Your task to perform on an android device: What time is it in Berlin? Image 0: 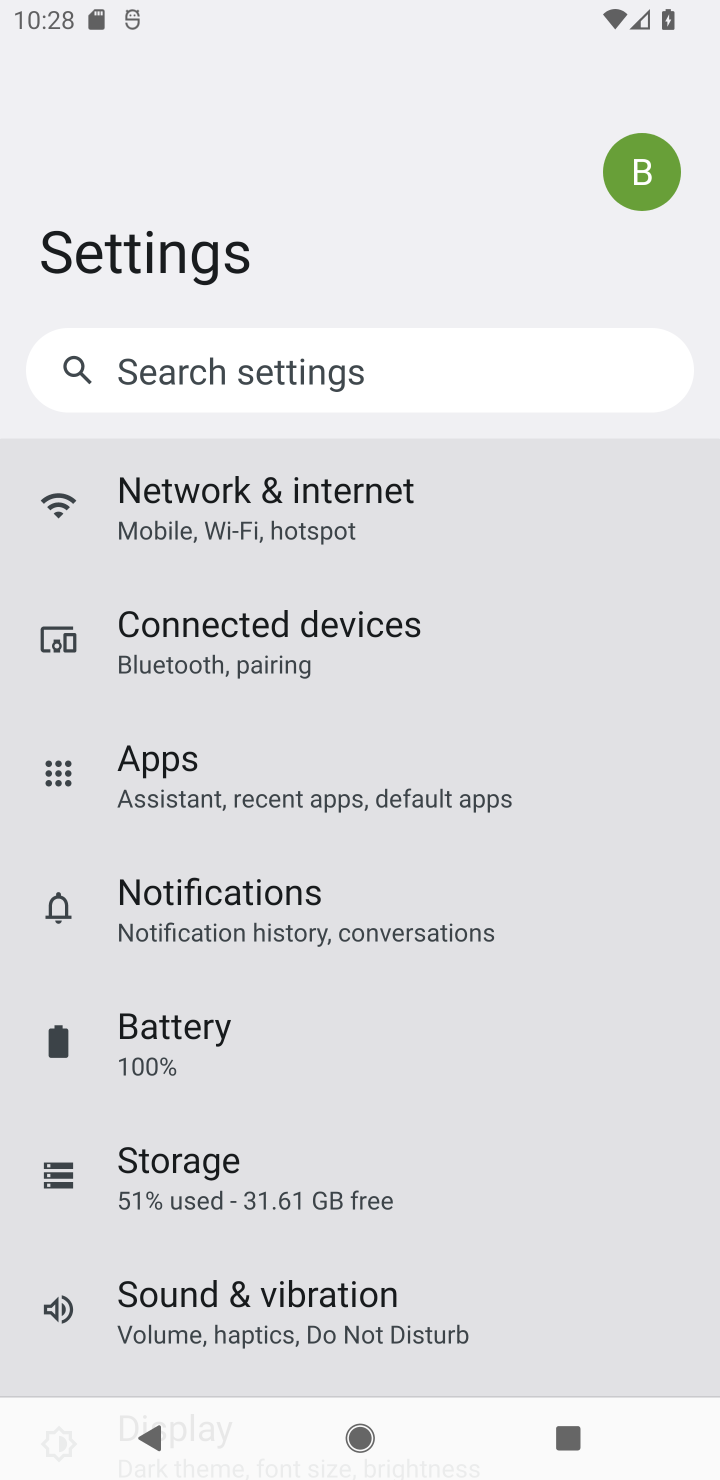
Step 0: press home button
Your task to perform on an android device: What time is it in Berlin? Image 1: 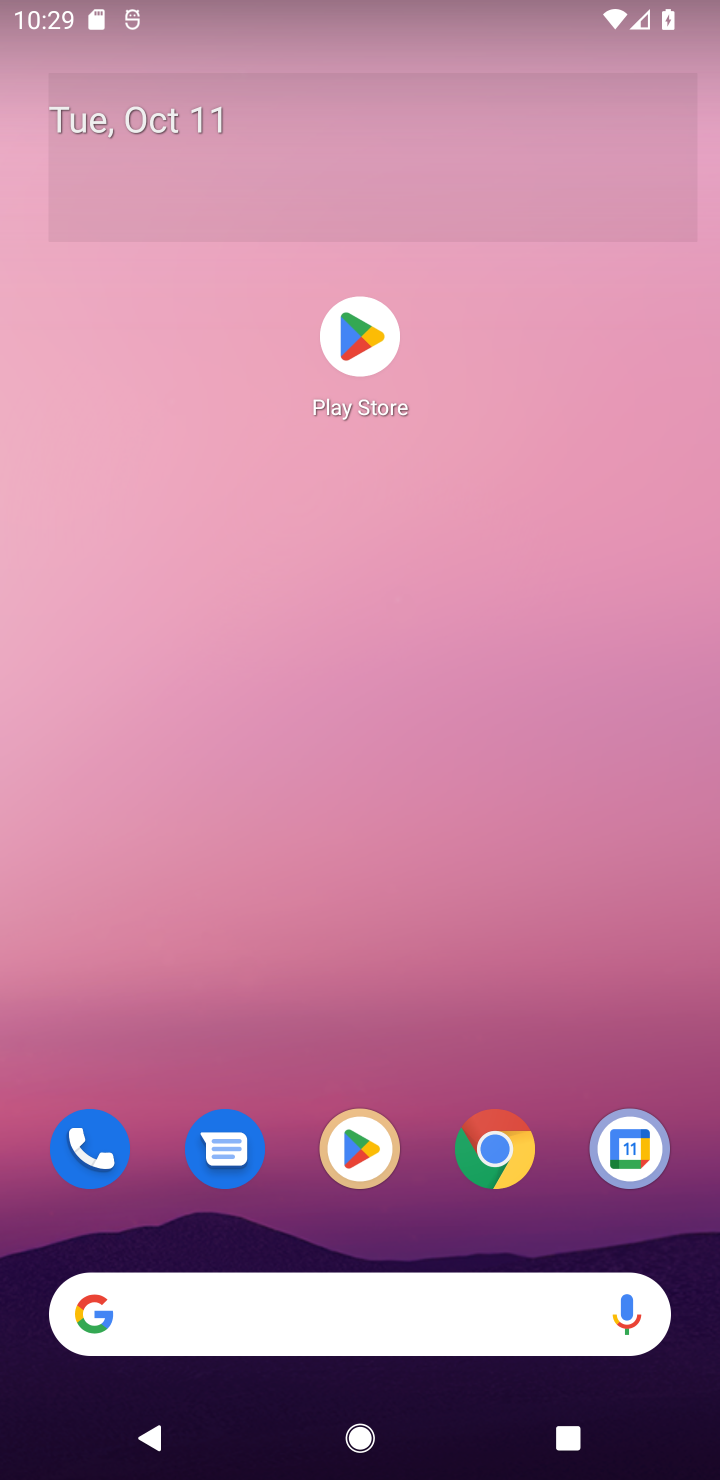
Step 1: click (341, 1315)
Your task to perform on an android device: What time is it in Berlin? Image 2: 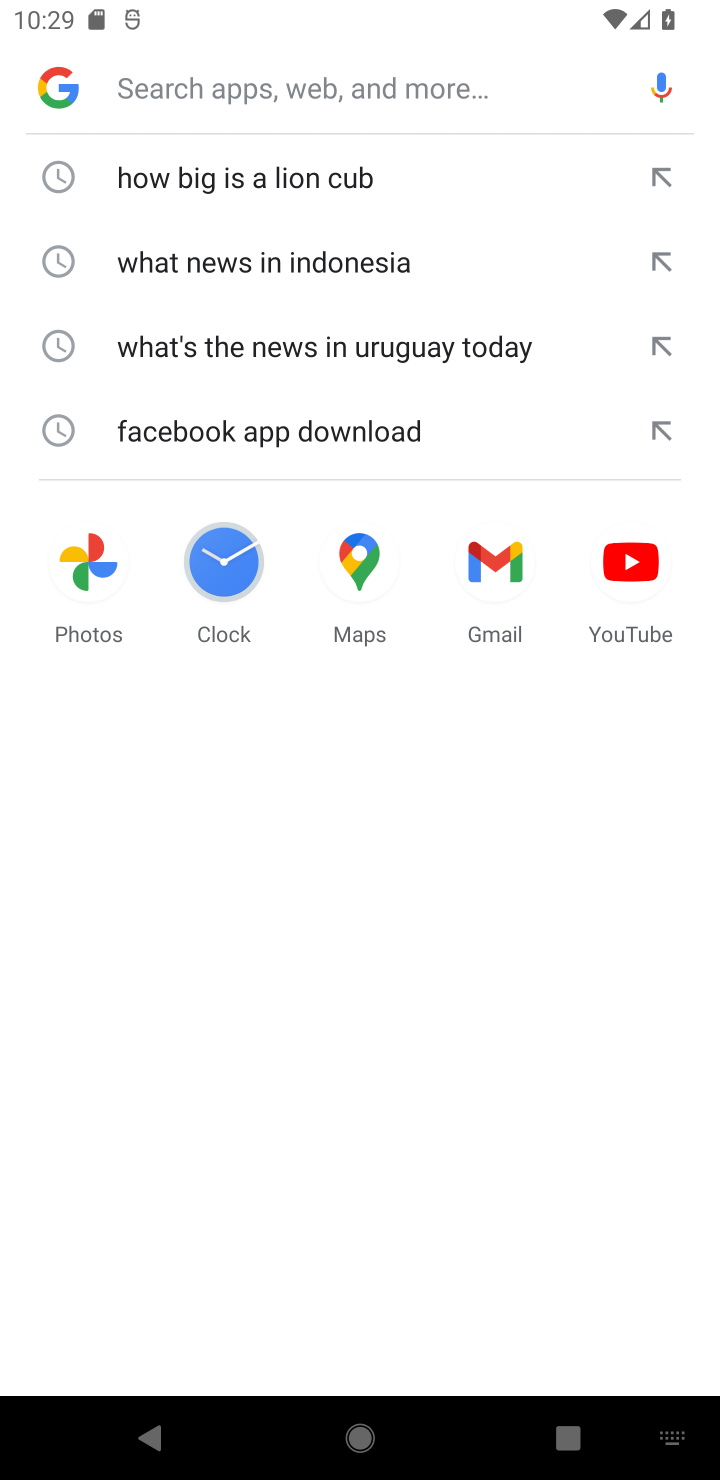
Step 2: type "What time is it in Berlin?"
Your task to perform on an android device: What time is it in Berlin? Image 3: 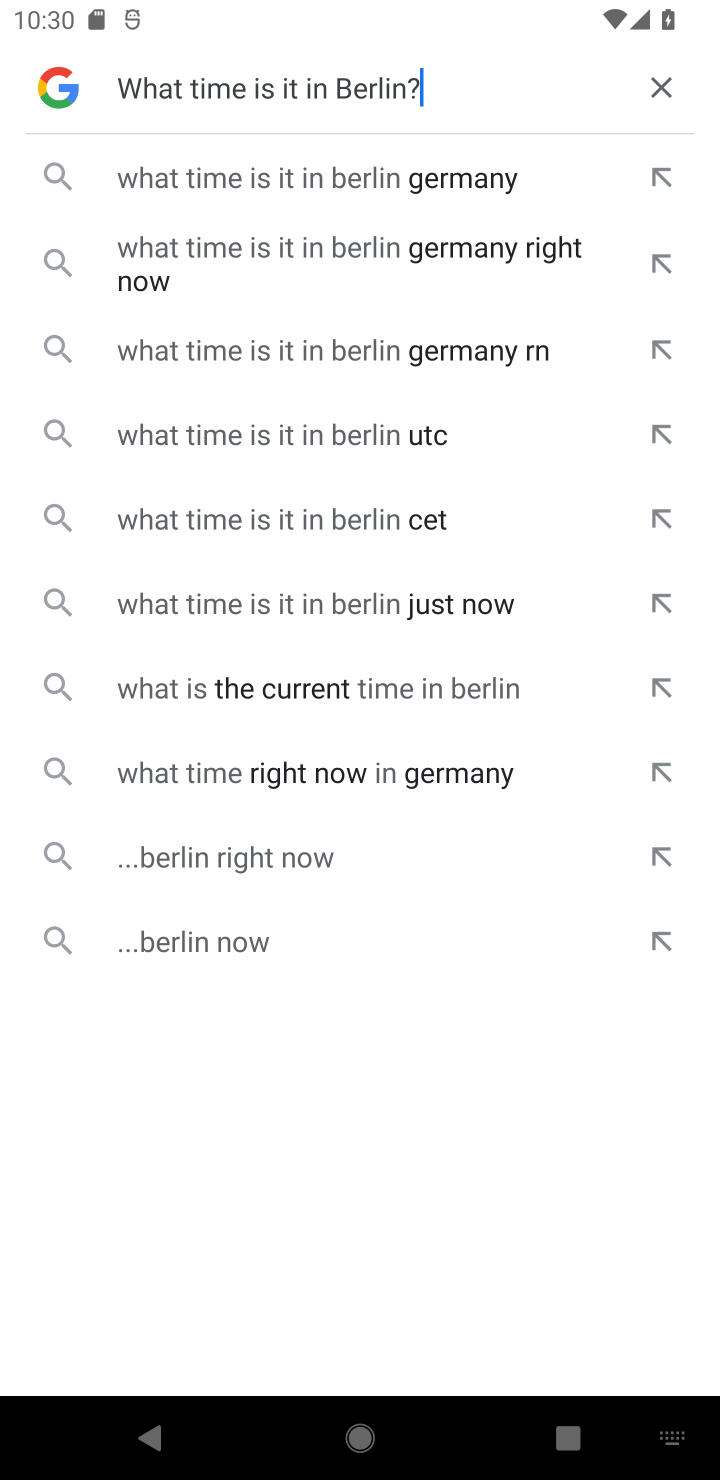
Step 3: click (458, 189)
Your task to perform on an android device: What time is it in Berlin? Image 4: 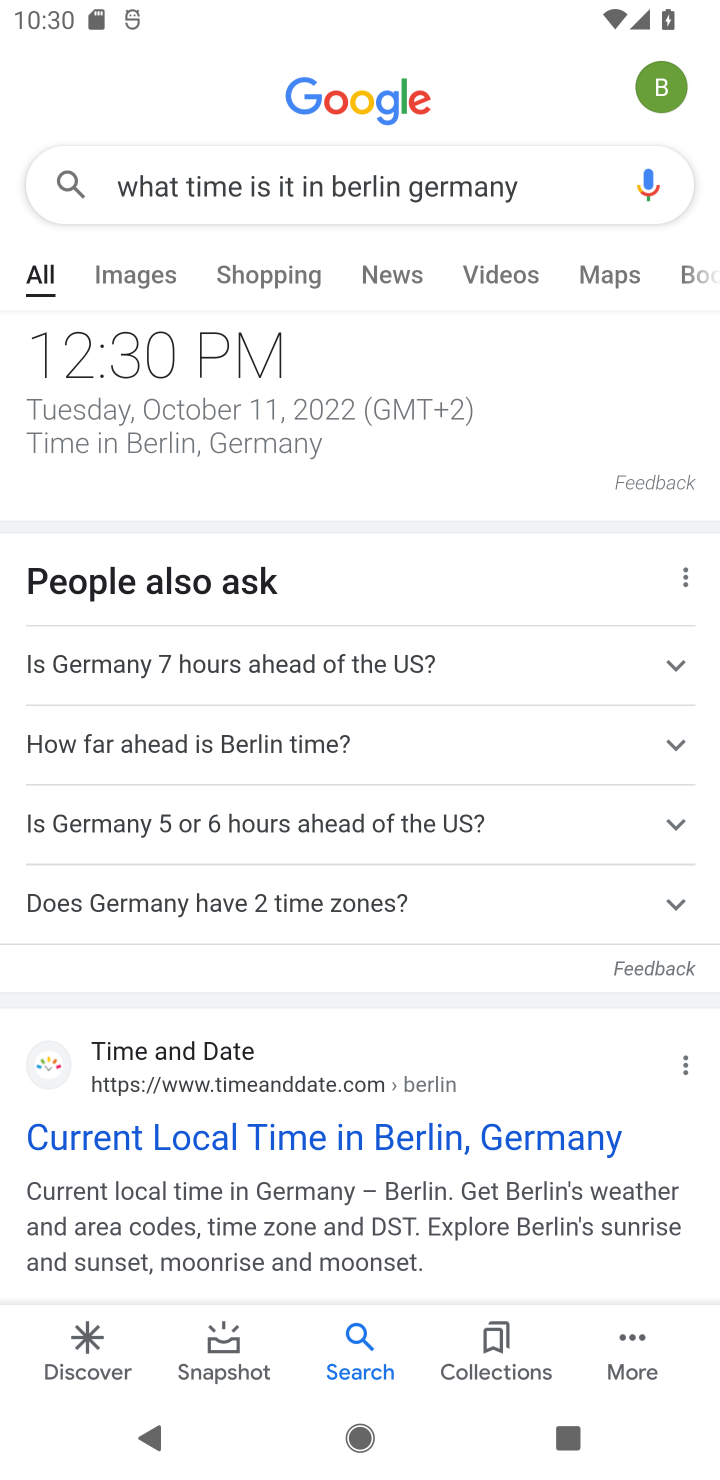
Step 4: task complete